Your task to perform on an android device: check android version Image 0: 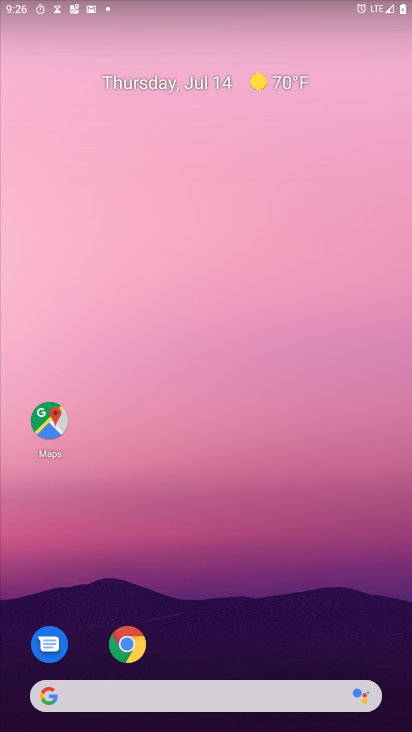
Step 0: drag from (167, 687) to (182, 130)
Your task to perform on an android device: check android version Image 1: 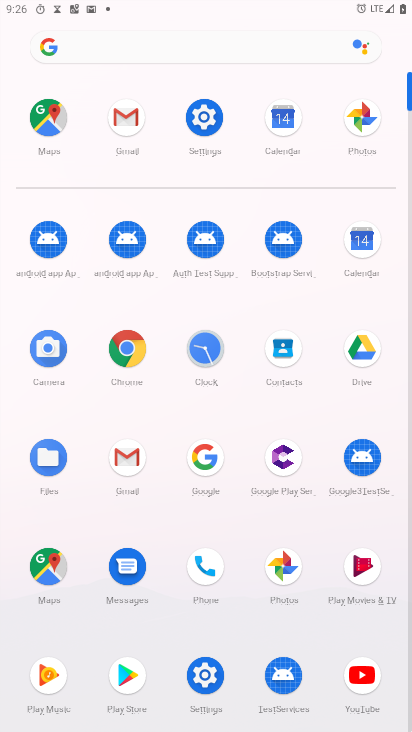
Step 1: click (202, 119)
Your task to perform on an android device: check android version Image 2: 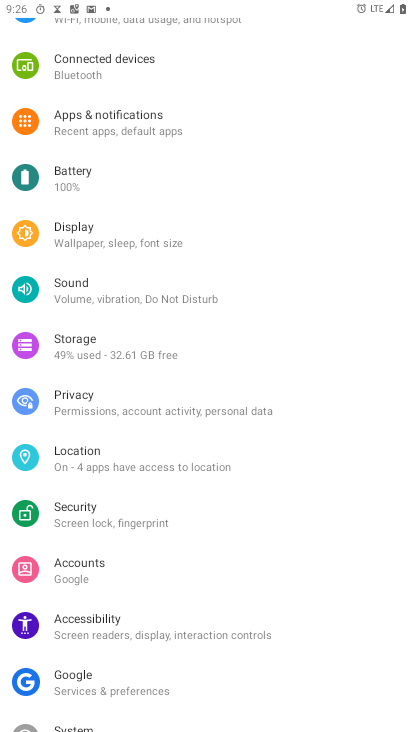
Step 2: drag from (260, 674) to (312, 187)
Your task to perform on an android device: check android version Image 3: 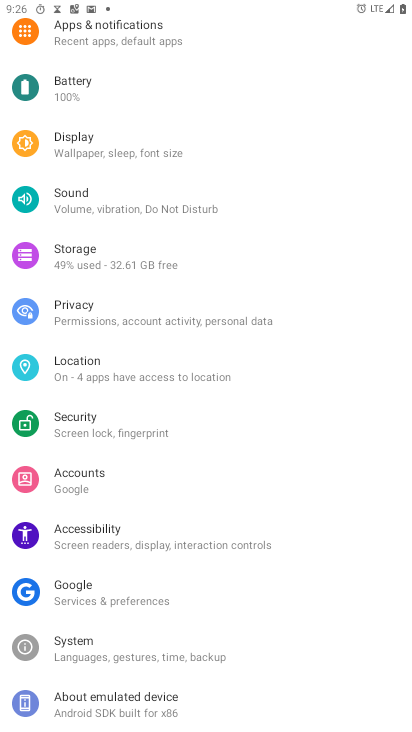
Step 3: click (145, 697)
Your task to perform on an android device: check android version Image 4: 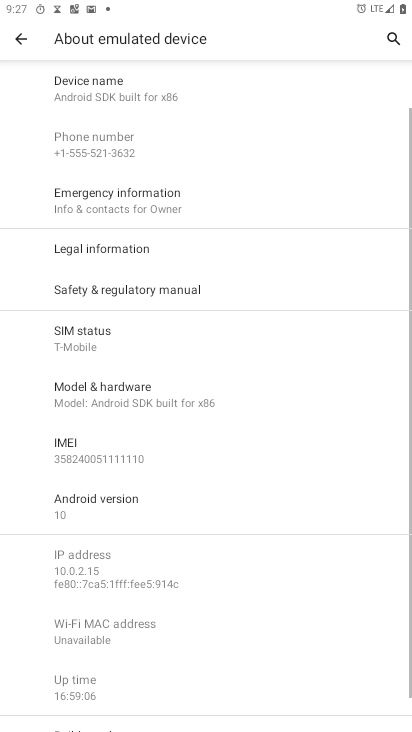
Step 4: click (105, 491)
Your task to perform on an android device: check android version Image 5: 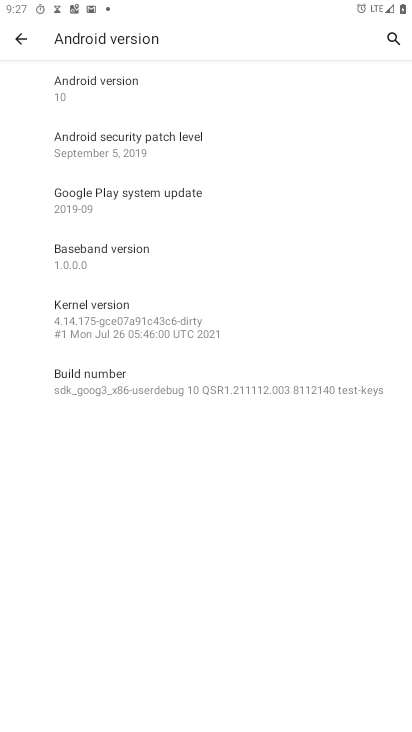
Step 5: task complete